Your task to perform on an android device: Look up the best rated gaming chairs on Target. Image 0: 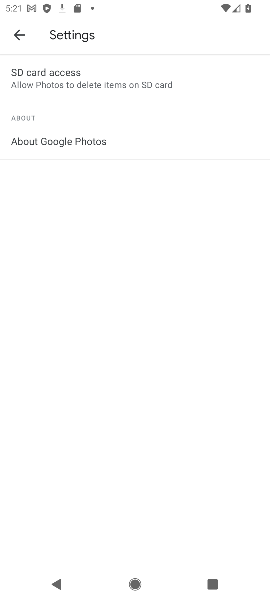
Step 0: task complete